Your task to perform on an android device: Empty the shopping cart on walmart. Search for "razer nari" on walmart, select the first entry, add it to the cart, then select checkout. Image 0: 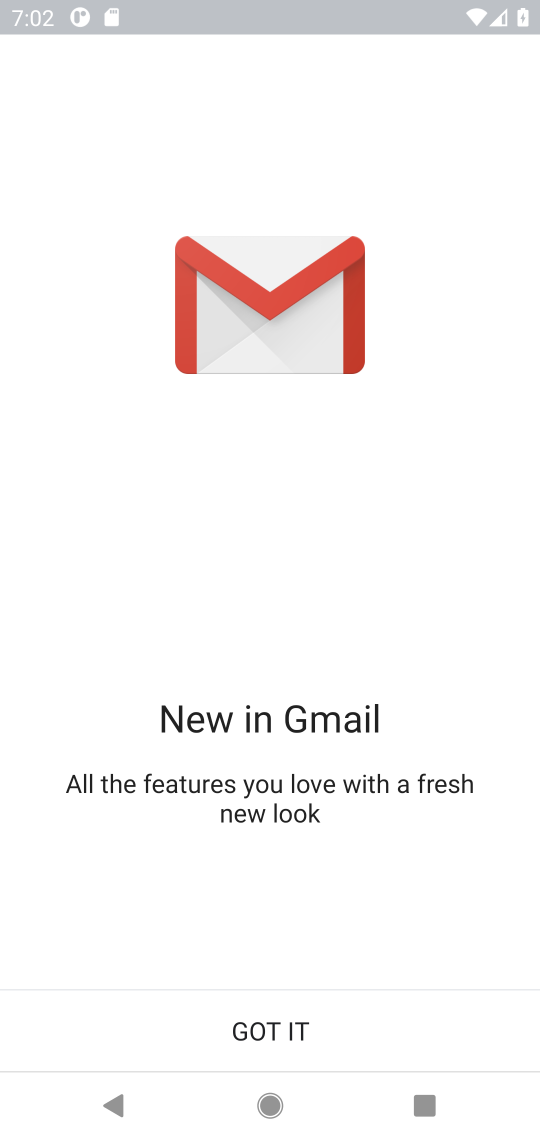
Step 0: press home button
Your task to perform on an android device: Empty the shopping cart on walmart. Search for "razer nari" on walmart, select the first entry, add it to the cart, then select checkout. Image 1: 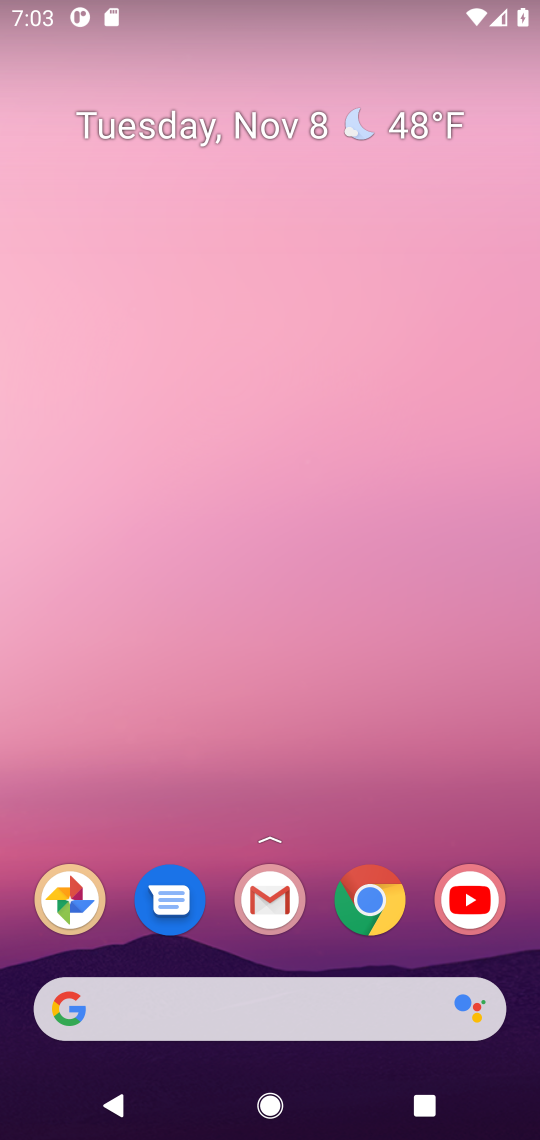
Step 1: drag from (203, 936) to (288, 249)
Your task to perform on an android device: Empty the shopping cart on walmart. Search for "razer nari" on walmart, select the first entry, add it to the cart, then select checkout. Image 2: 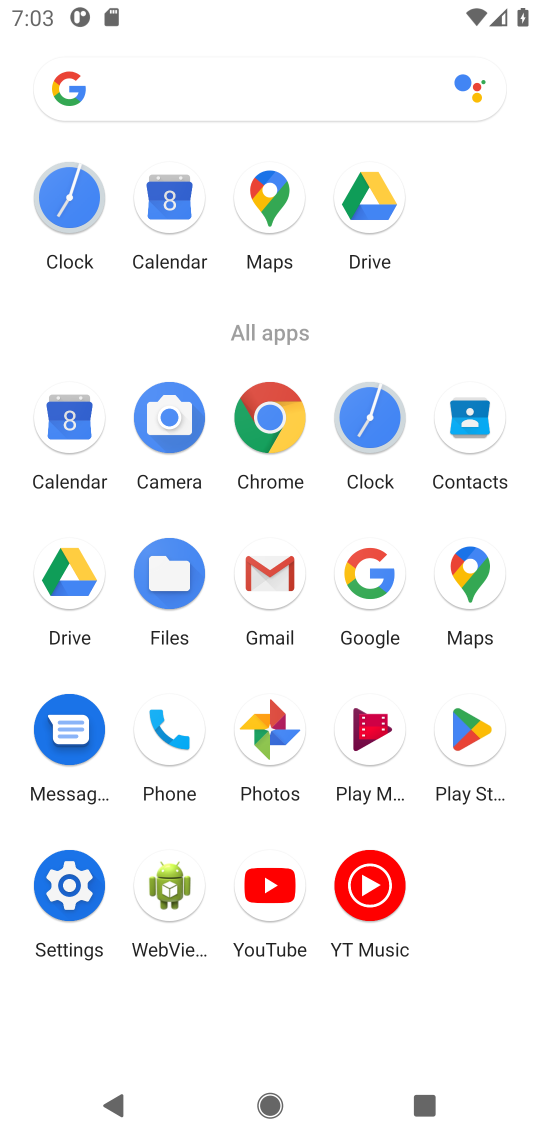
Step 2: click (374, 589)
Your task to perform on an android device: Empty the shopping cart on walmart. Search for "razer nari" on walmart, select the first entry, add it to the cart, then select checkout. Image 3: 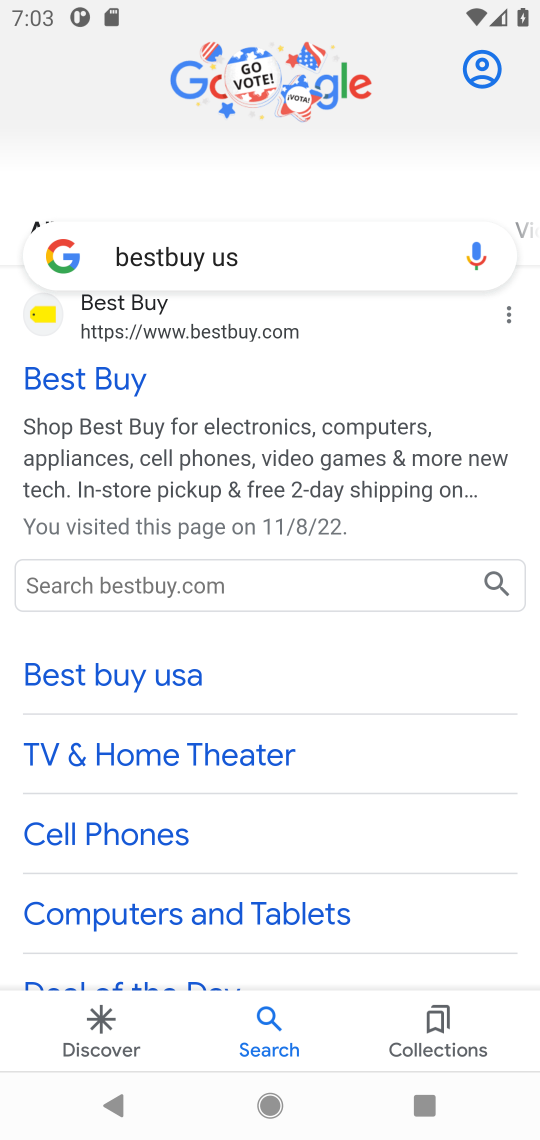
Step 3: click (265, 266)
Your task to perform on an android device: Empty the shopping cart on walmart. Search for "razer nari" on walmart, select the first entry, add it to the cart, then select checkout. Image 4: 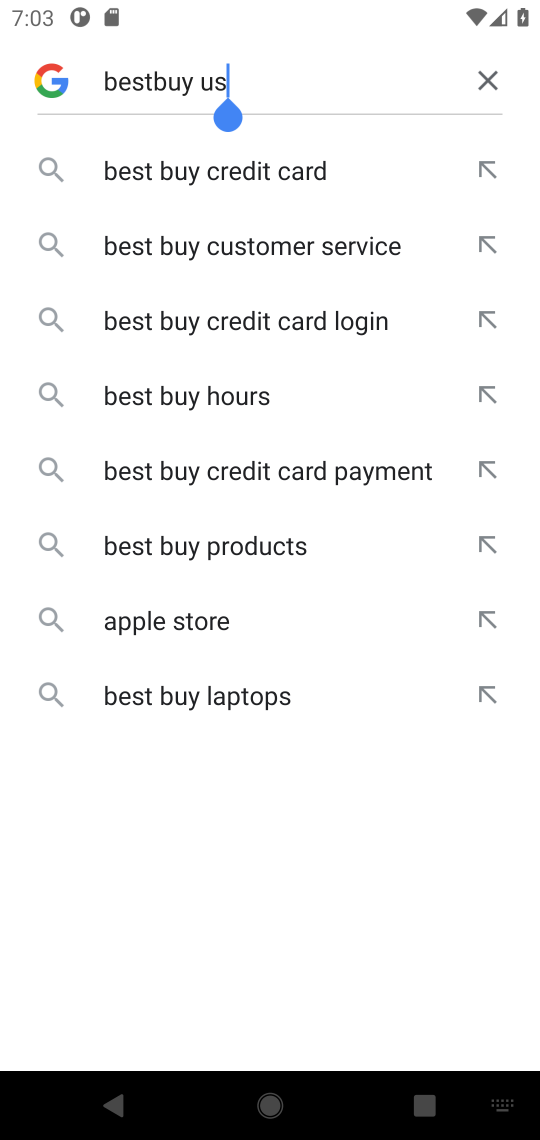
Step 4: click (482, 74)
Your task to perform on an android device: Empty the shopping cart on walmart. Search for "razer nari" on walmart, select the first entry, add it to the cart, then select checkout. Image 5: 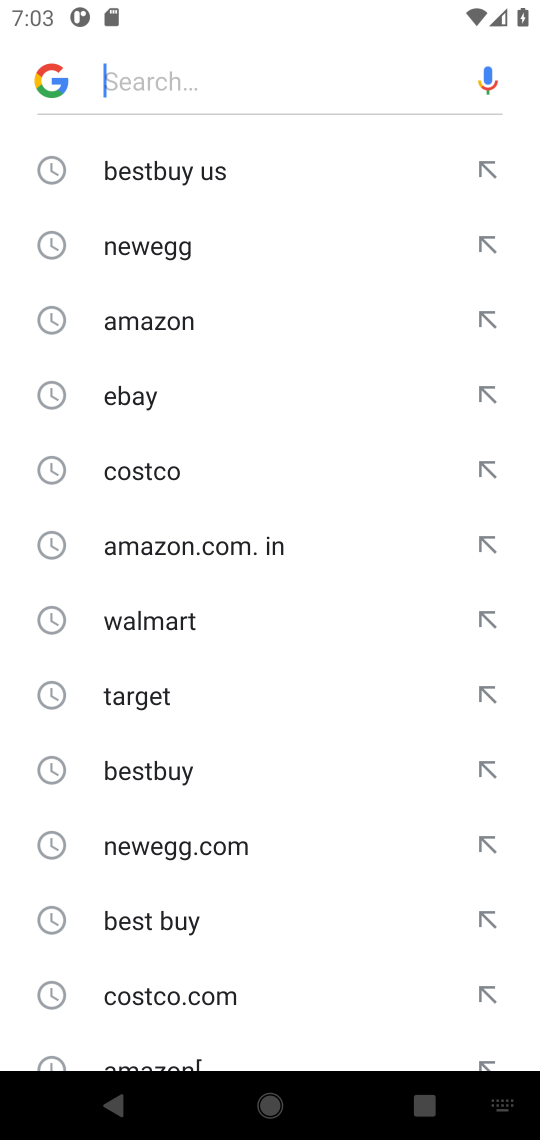
Step 5: click (174, 79)
Your task to perform on an android device: Empty the shopping cart on walmart. Search for "razer nari" on walmart, select the first entry, add it to the cart, then select checkout. Image 6: 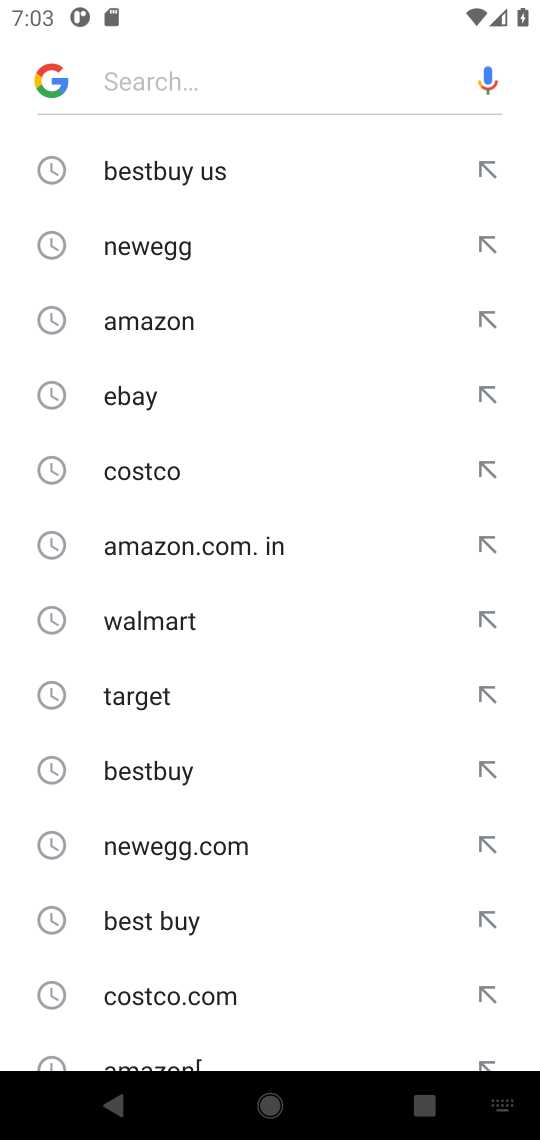
Step 6: type "walmart "
Your task to perform on an android device: Empty the shopping cart on walmart. Search for "razer nari" on walmart, select the first entry, add it to the cart, then select checkout. Image 7: 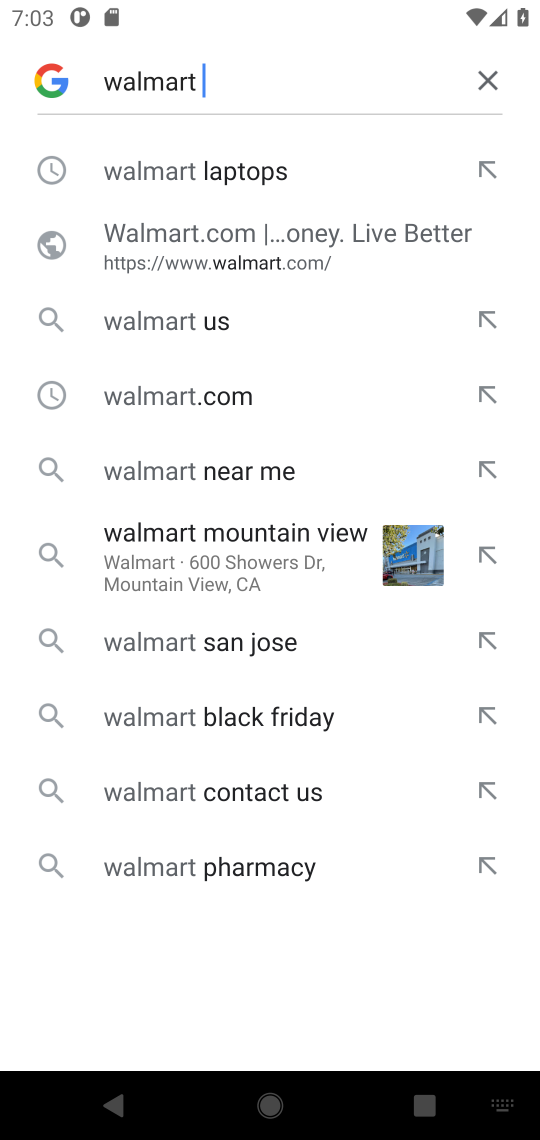
Step 7: click (169, 246)
Your task to perform on an android device: Empty the shopping cart on walmart. Search for "razer nari" on walmart, select the first entry, add it to the cart, then select checkout. Image 8: 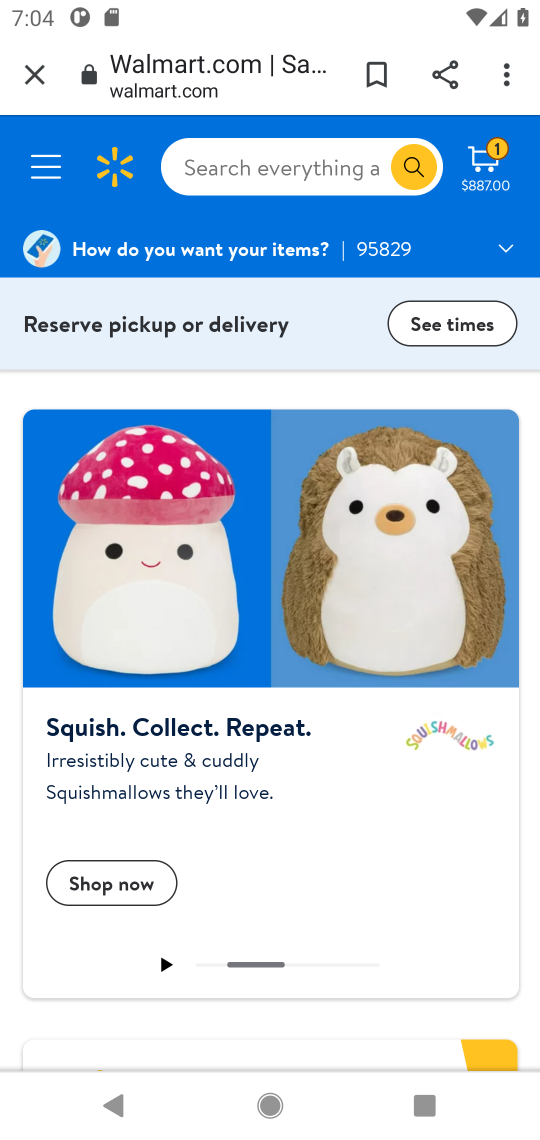
Step 8: click (241, 164)
Your task to perform on an android device: Empty the shopping cart on walmart. Search for "razer nari" on walmart, select the first entry, add it to the cart, then select checkout. Image 9: 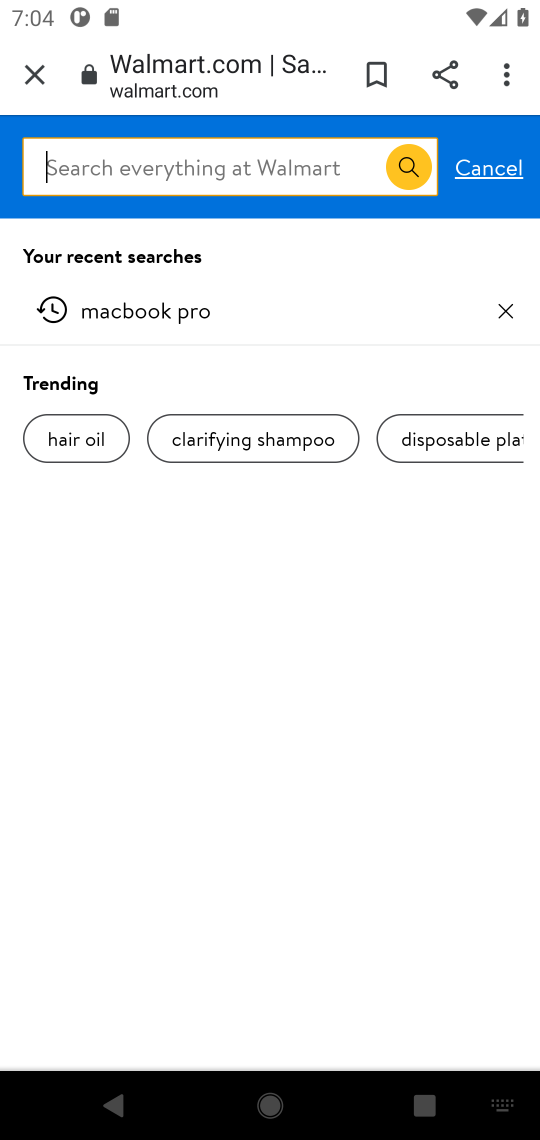
Step 9: click (240, 165)
Your task to perform on an android device: Empty the shopping cart on walmart. Search for "razer nari" on walmart, select the first entry, add it to the cart, then select checkout. Image 10: 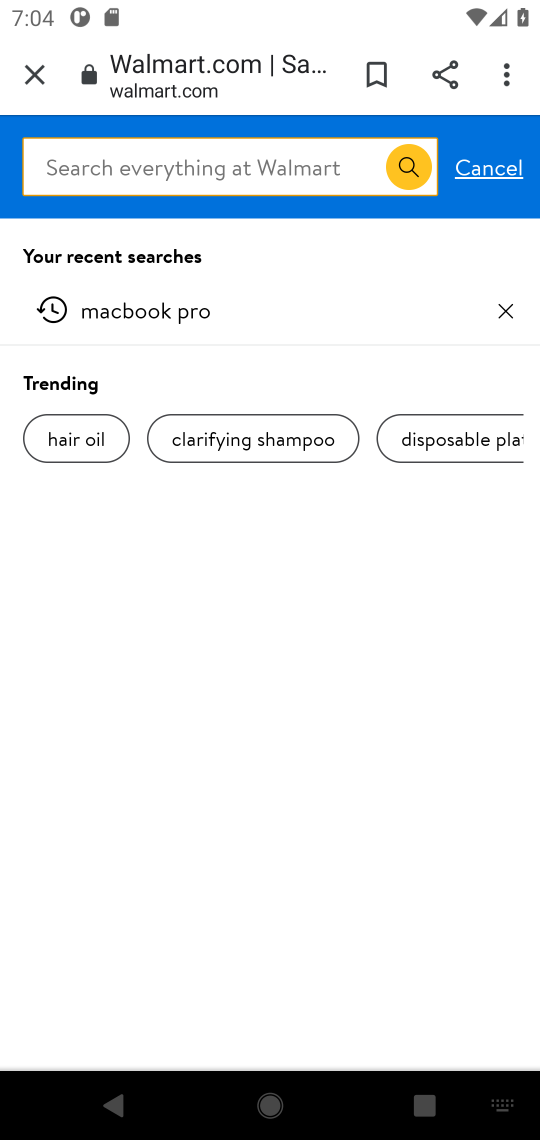
Step 10: type ""razer nari" "
Your task to perform on an android device: Empty the shopping cart on walmart. Search for "razer nari" on walmart, select the first entry, add it to the cart, then select checkout. Image 11: 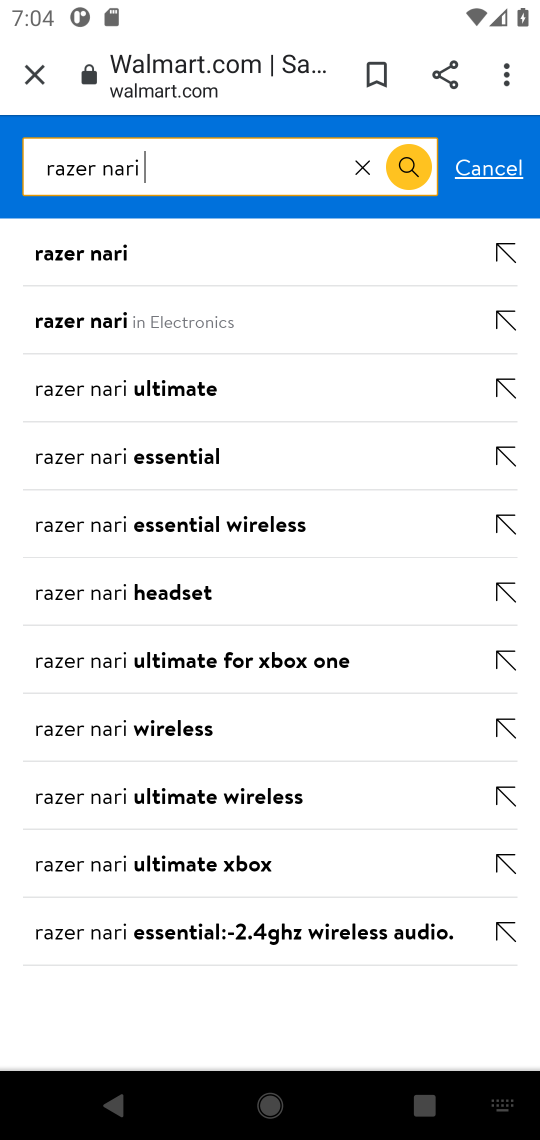
Step 11: click (118, 258)
Your task to perform on an android device: Empty the shopping cart on walmart. Search for "razer nari" on walmart, select the first entry, add it to the cart, then select checkout. Image 12: 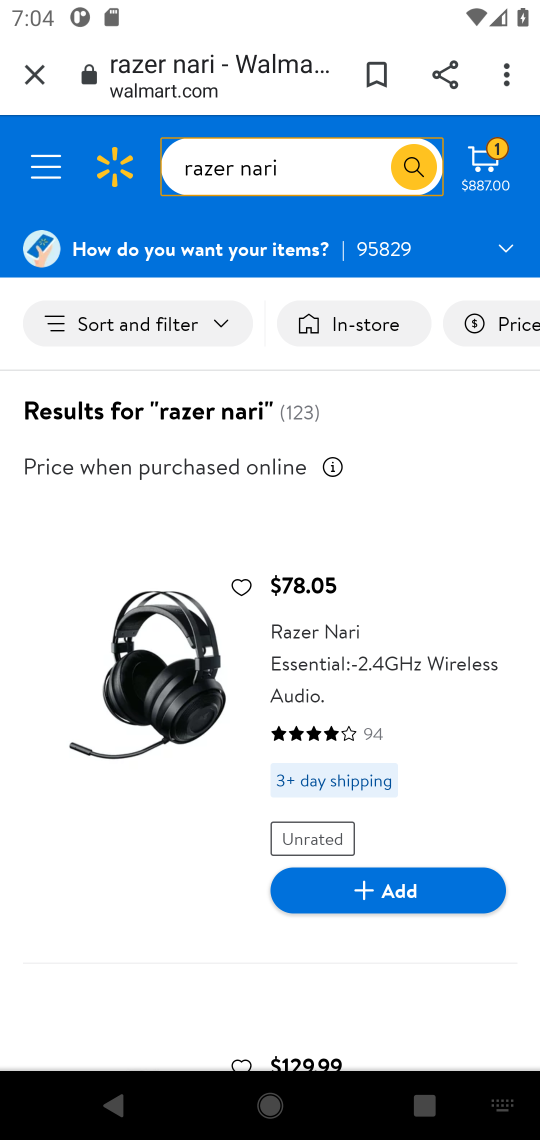
Step 12: click (404, 893)
Your task to perform on an android device: Empty the shopping cart on walmart. Search for "razer nari" on walmart, select the first entry, add it to the cart, then select checkout. Image 13: 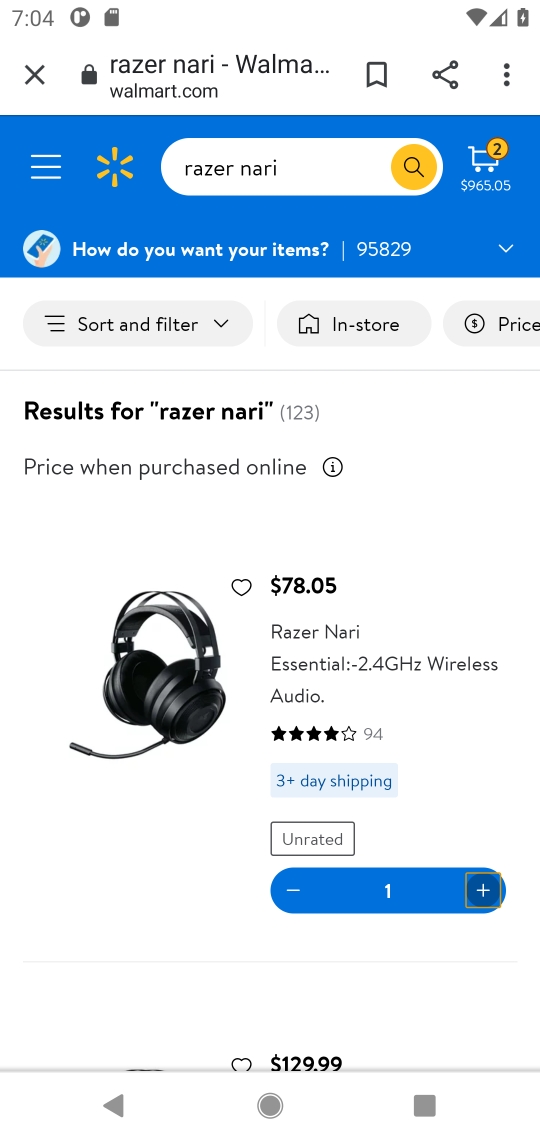
Step 13: task complete